Your task to perform on an android device: turn off airplane mode Image 0: 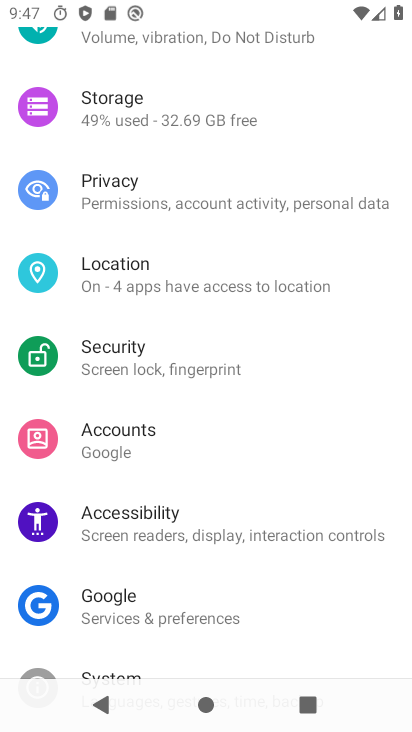
Step 0: press home button
Your task to perform on an android device: turn off airplane mode Image 1: 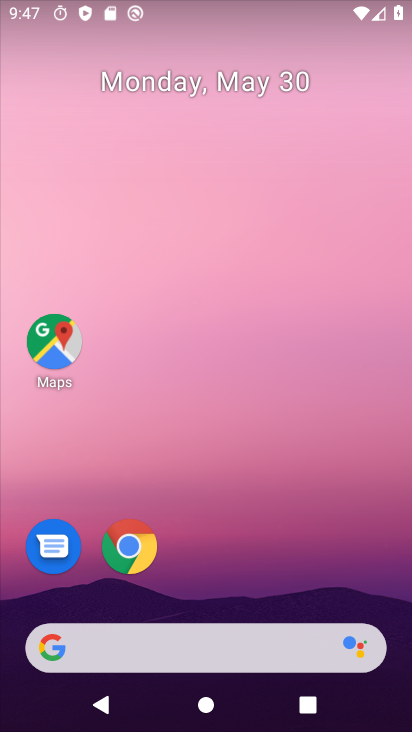
Step 1: task complete